Your task to perform on an android device: Go to location settings Image 0: 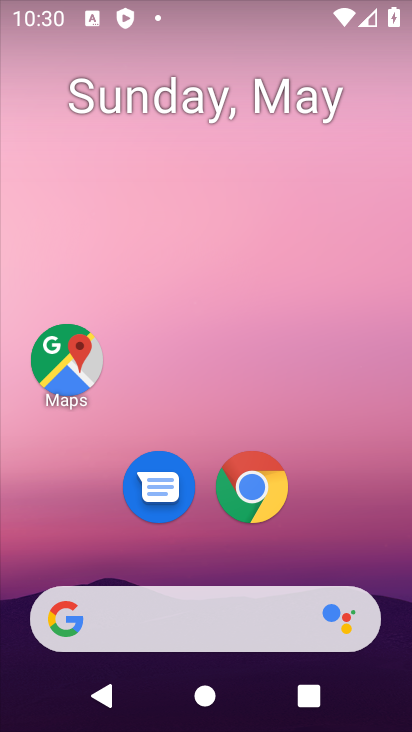
Step 0: drag from (306, 571) to (344, 138)
Your task to perform on an android device: Go to location settings Image 1: 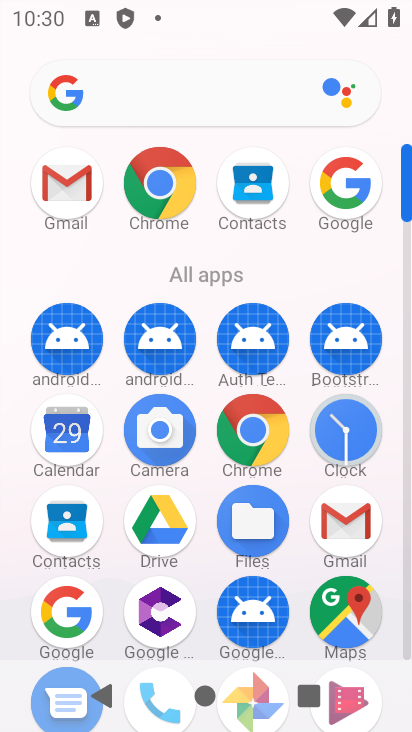
Step 1: drag from (196, 481) to (364, 22)
Your task to perform on an android device: Go to location settings Image 2: 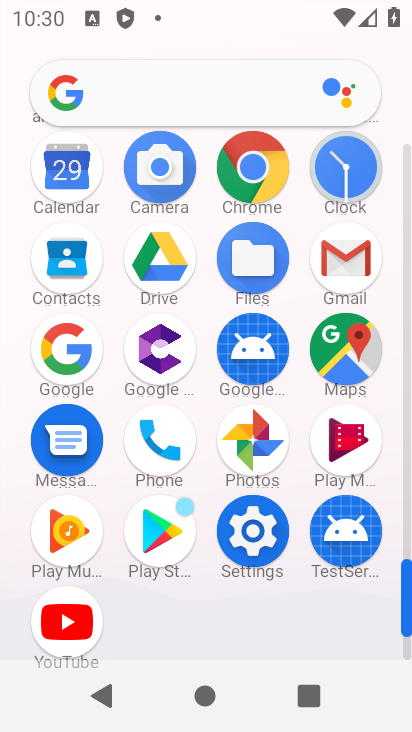
Step 2: click (270, 541)
Your task to perform on an android device: Go to location settings Image 3: 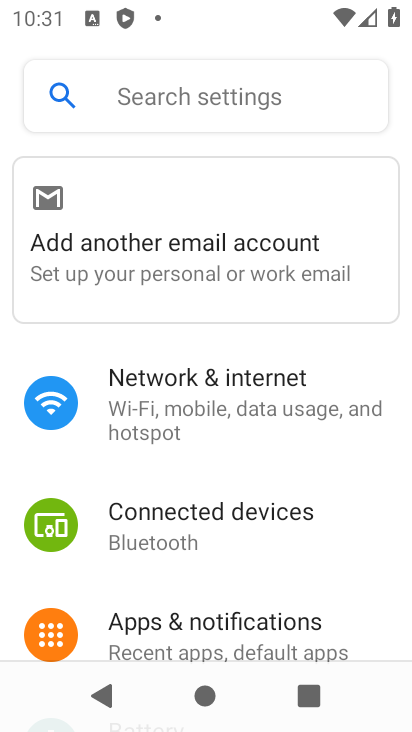
Step 3: drag from (230, 515) to (249, 337)
Your task to perform on an android device: Go to location settings Image 4: 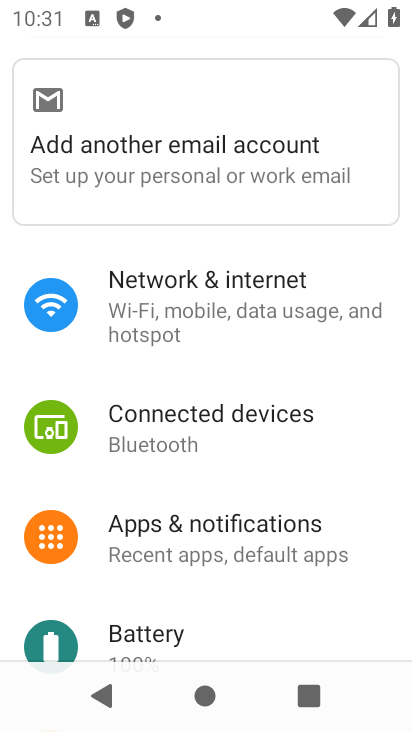
Step 4: drag from (221, 548) to (218, 313)
Your task to perform on an android device: Go to location settings Image 5: 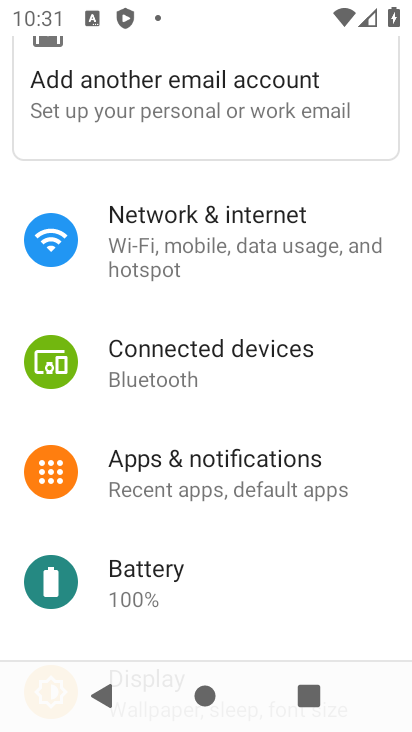
Step 5: drag from (240, 423) to (7, 458)
Your task to perform on an android device: Go to location settings Image 6: 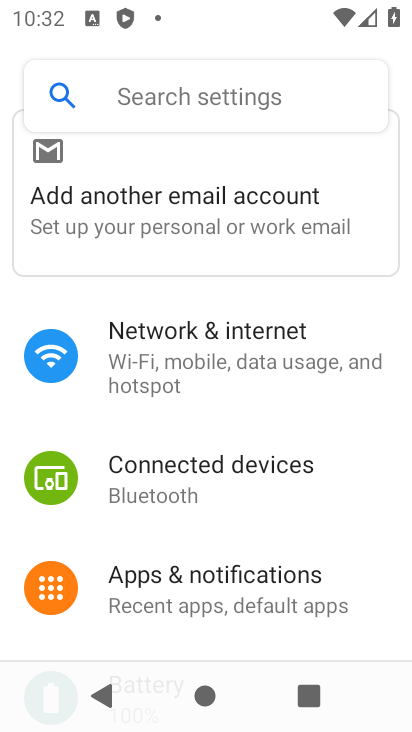
Step 6: drag from (254, 558) to (315, 72)
Your task to perform on an android device: Go to location settings Image 7: 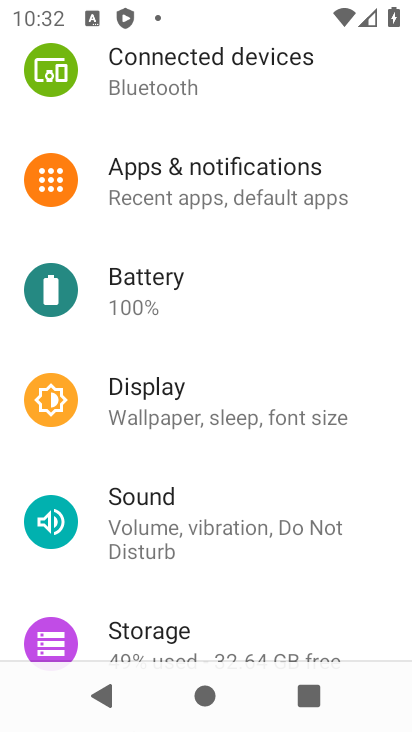
Step 7: drag from (296, 510) to (263, 72)
Your task to perform on an android device: Go to location settings Image 8: 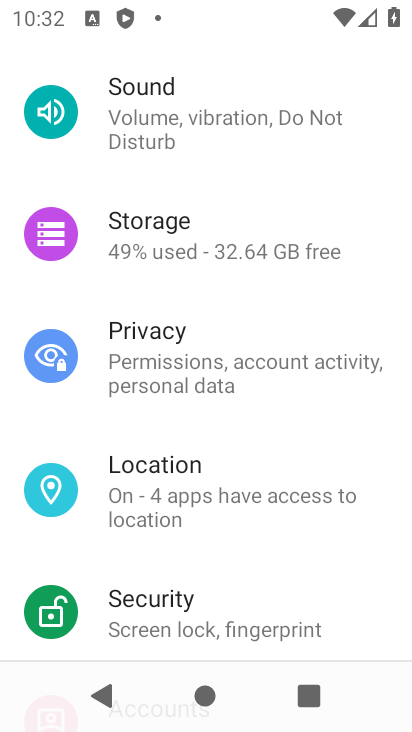
Step 8: drag from (264, 587) to (267, 358)
Your task to perform on an android device: Go to location settings Image 9: 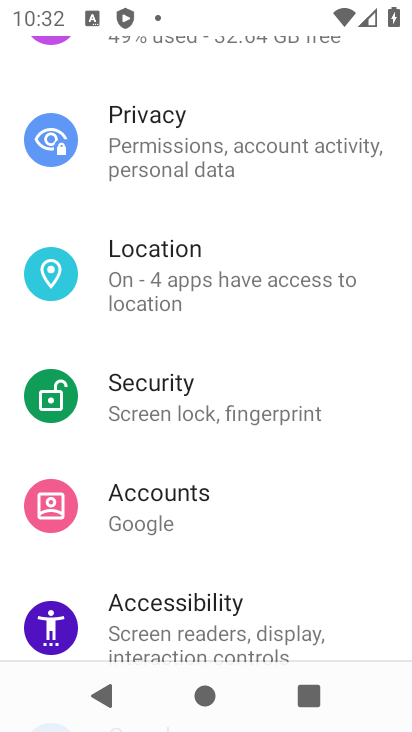
Step 9: click (298, 258)
Your task to perform on an android device: Go to location settings Image 10: 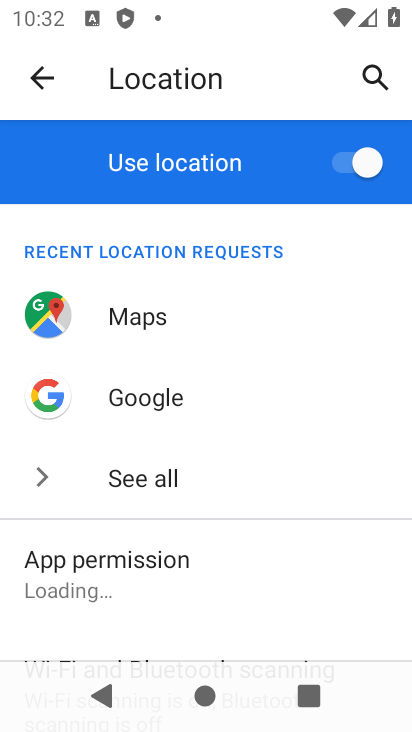
Step 10: task complete